Your task to perform on an android device: Open the stopwatch Image 0: 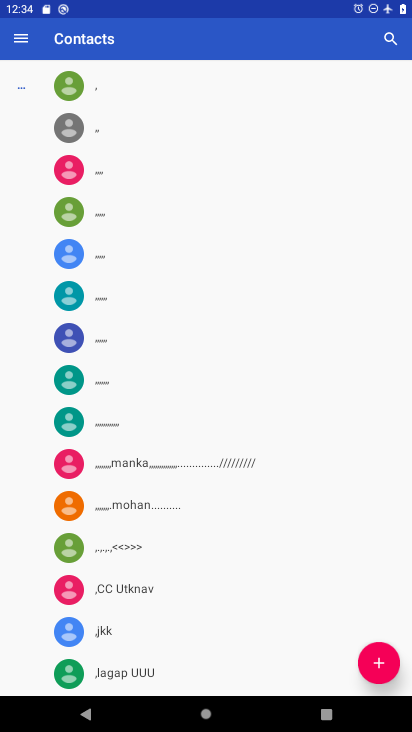
Step 0: press home button
Your task to perform on an android device: Open the stopwatch Image 1: 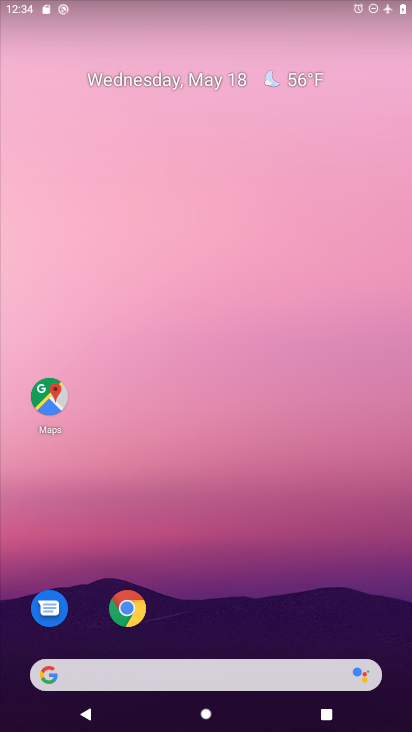
Step 1: drag from (246, 689) to (196, 250)
Your task to perform on an android device: Open the stopwatch Image 2: 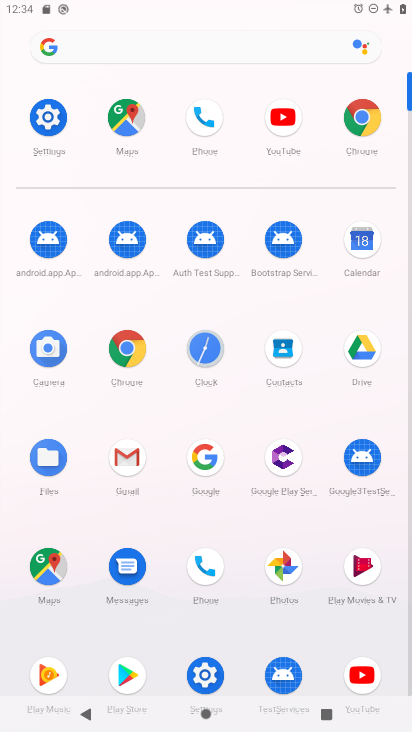
Step 2: click (195, 353)
Your task to perform on an android device: Open the stopwatch Image 3: 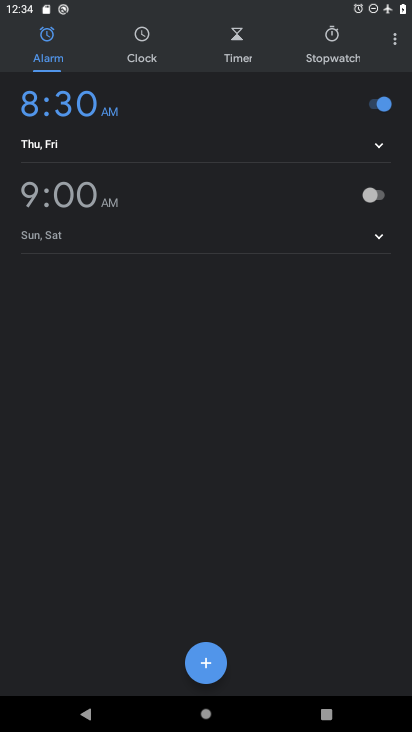
Step 3: click (336, 38)
Your task to perform on an android device: Open the stopwatch Image 4: 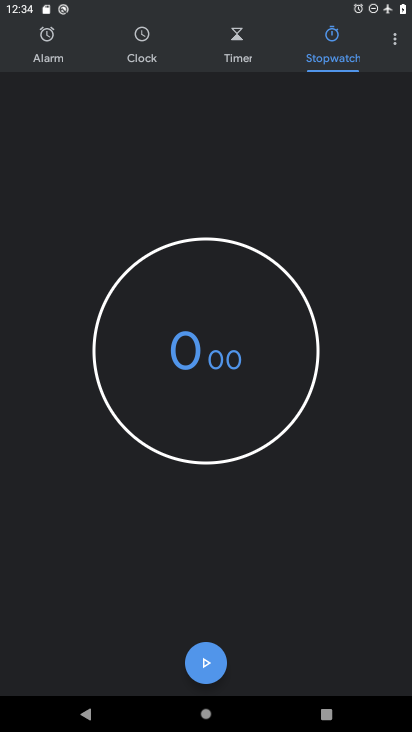
Step 4: task complete